Your task to perform on an android device: find snoozed emails in the gmail app Image 0: 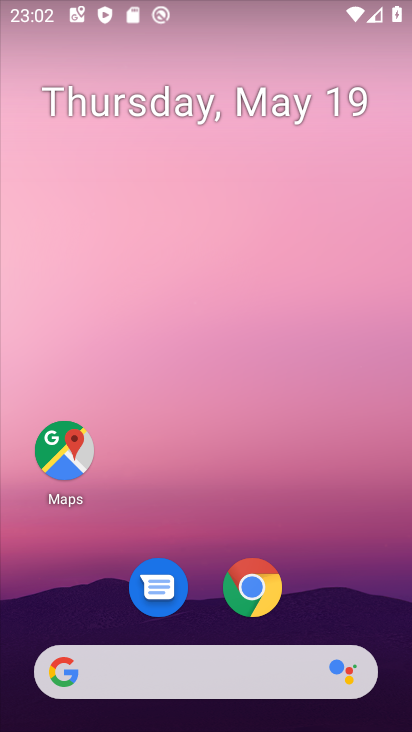
Step 0: press home button
Your task to perform on an android device: find snoozed emails in the gmail app Image 1: 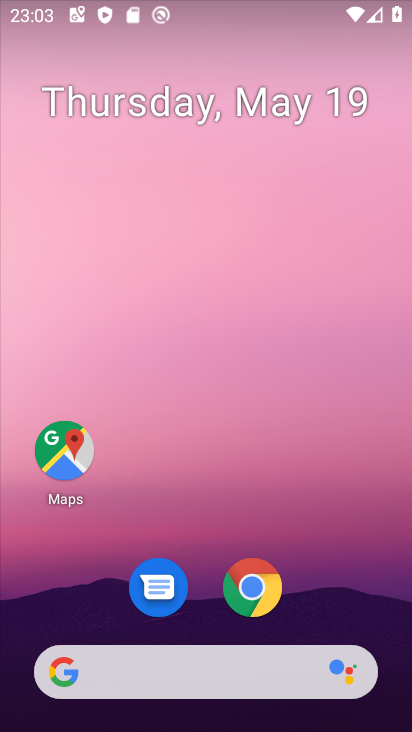
Step 1: drag from (258, 708) to (165, 277)
Your task to perform on an android device: find snoozed emails in the gmail app Image 2: 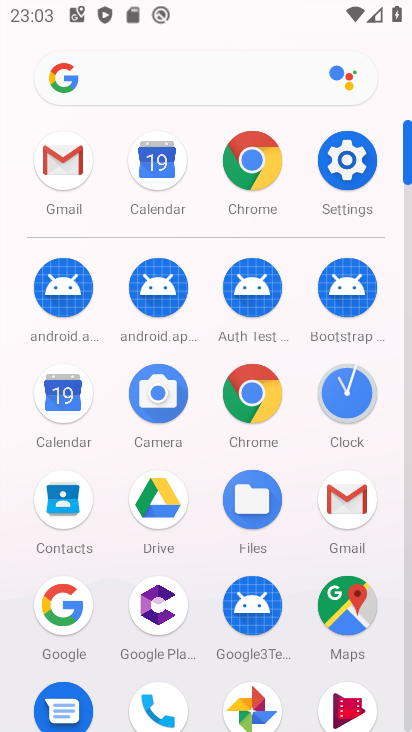
Step 2: click (57, 172)
Your task to perform on an android device: find snoozed emails in the gmail app Image 3: 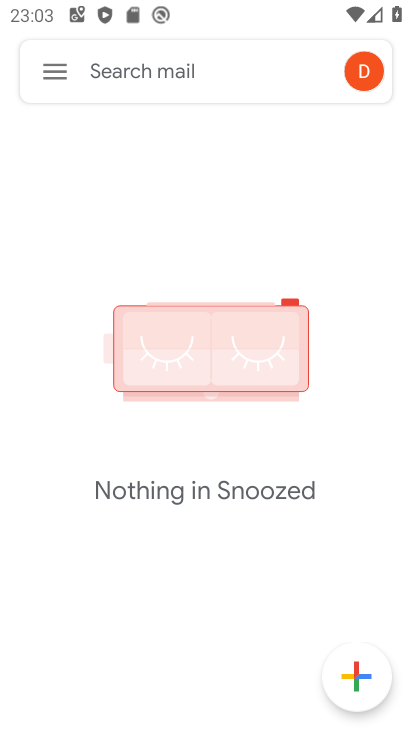
Step 3: click (57, 81)
Your task to perform on an android device: find snoozed emails in the gmail app Image 4: 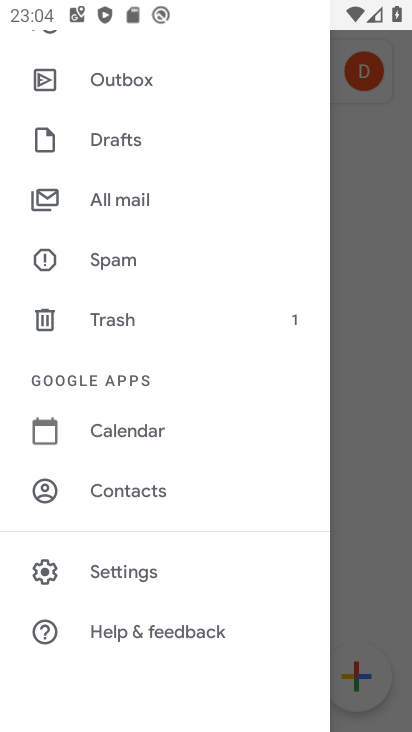
Step 4: drag from (102, 171) to (182, 383)
Your task to perform on an android device: find snoozed emails in the gmail app Image 5: 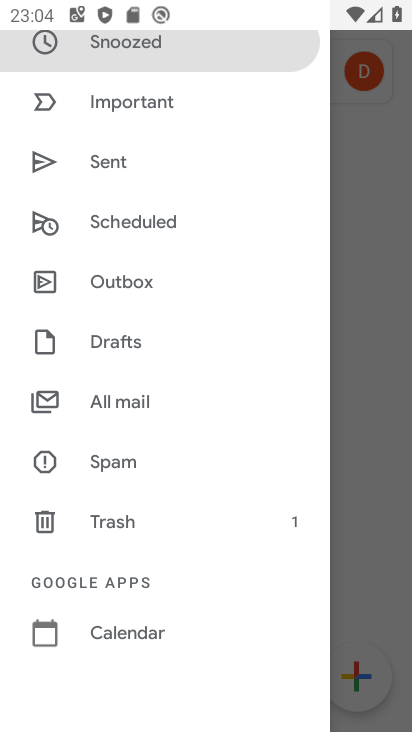
Step 5: click (141, 58)
Your task to perform on an android device: find snoozed emails in the gmail app Image 6: 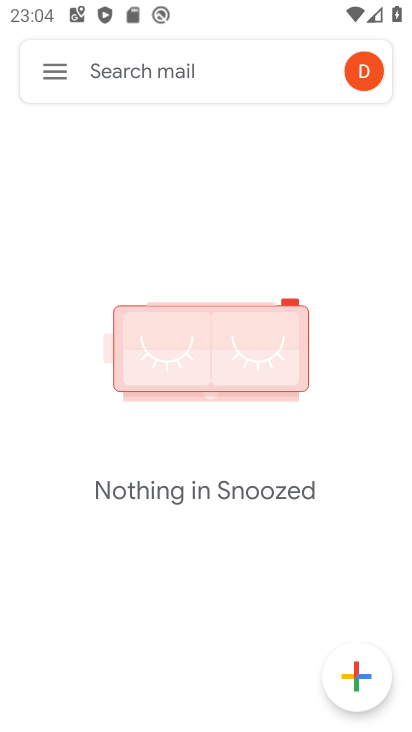
Step 6: task complete